Your task to perform on an android device: turn off airplane mode Image 0: 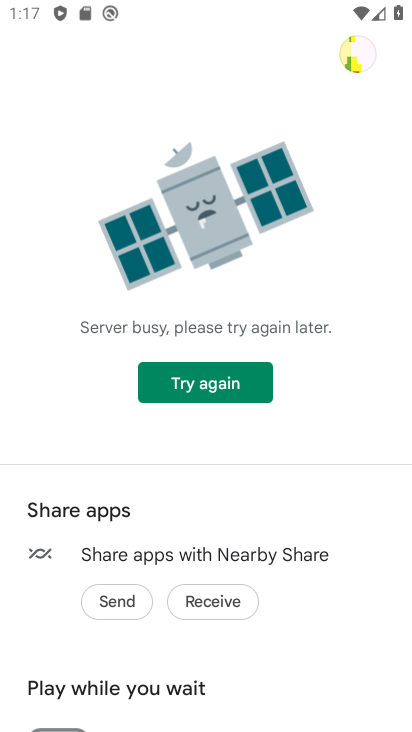
Step 0: press home button
Your task to perform on an android device: turn off airplane mode Image 1: 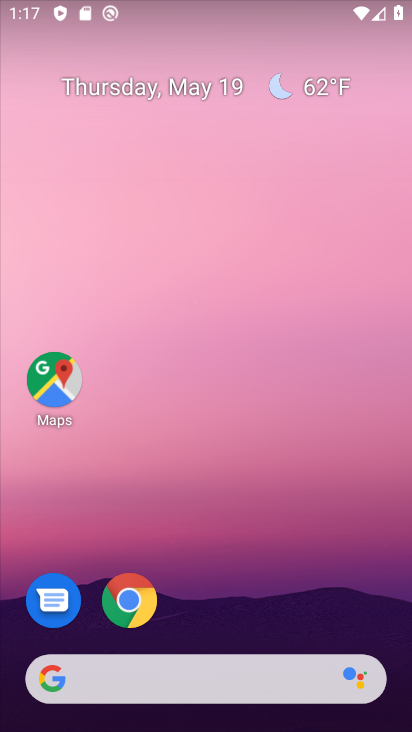
Step 1: task complete